Your task to perform on an android device: Search for sushi restaurants on Maps Image 0: 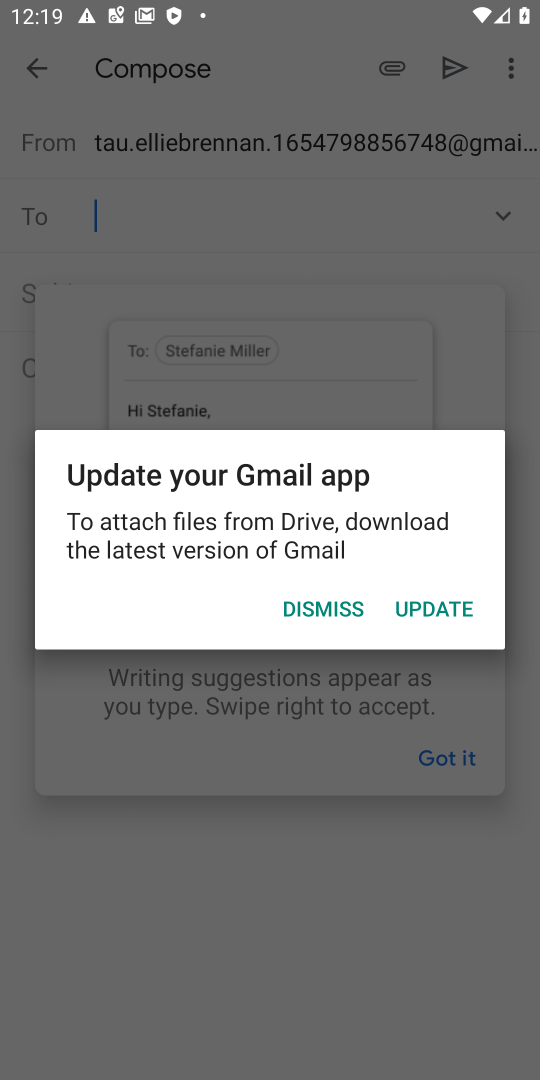
Step 0: press home button
Your task to perform on an android device: Search for sushi restaurants on Maps Image 1: 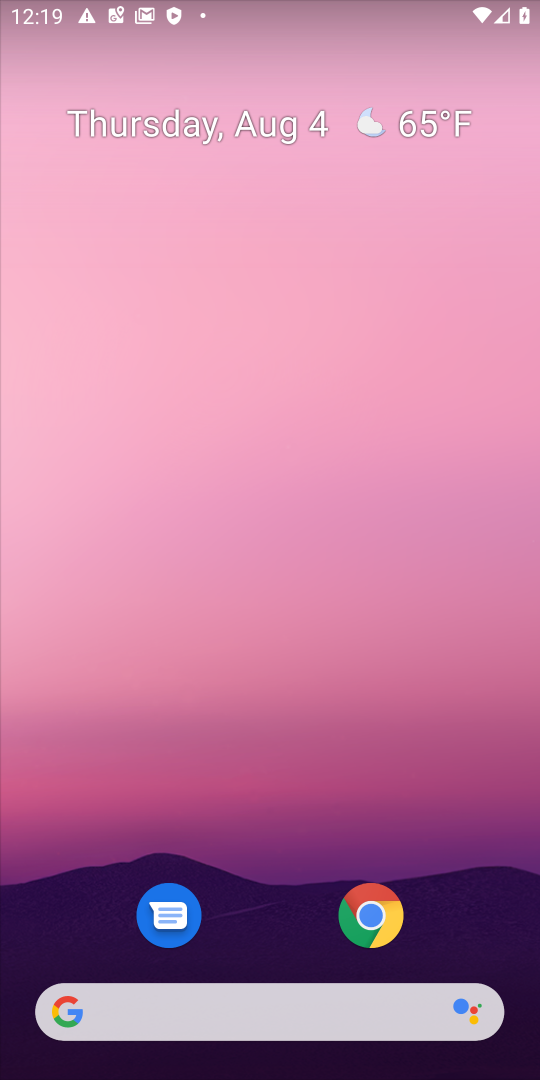
Step 1: drag from (266, 770) to (297, 93)
Your task to perform on an android device: Search for sushi restaurants on Maps Image 2: 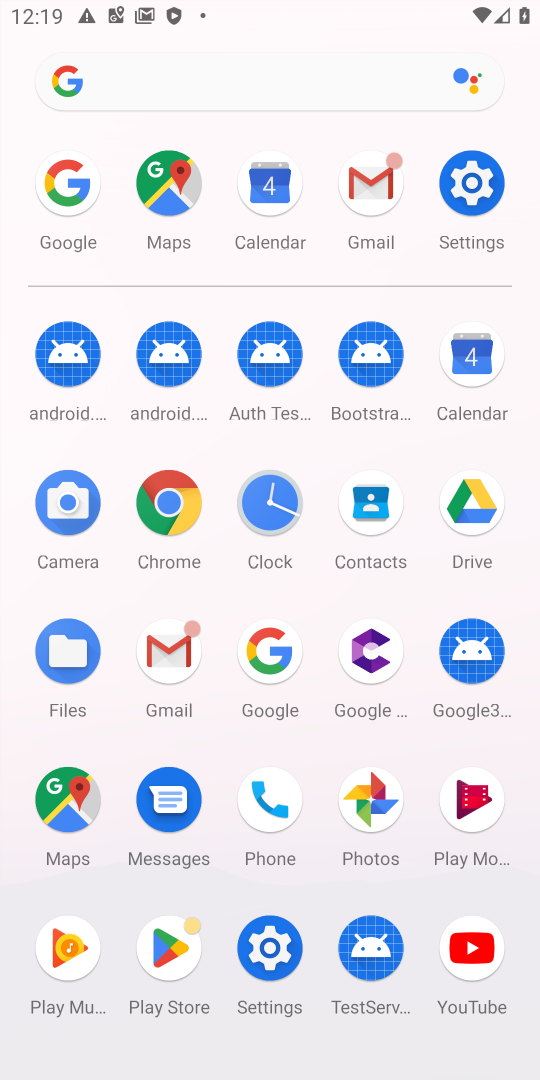
Step 2: click (171, 190)
Your task to perform on an android device: Search for sushi restaurants on Maps Image 3: 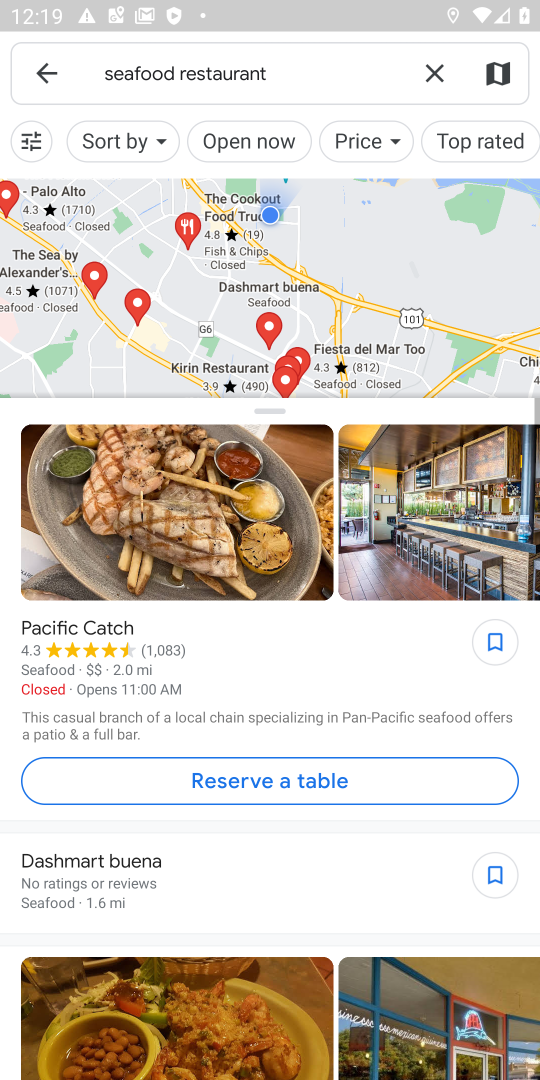
Step 3: click (49, 72)
Your task to perform on an android device: Search for sushi restaurants on Maps Image 4: 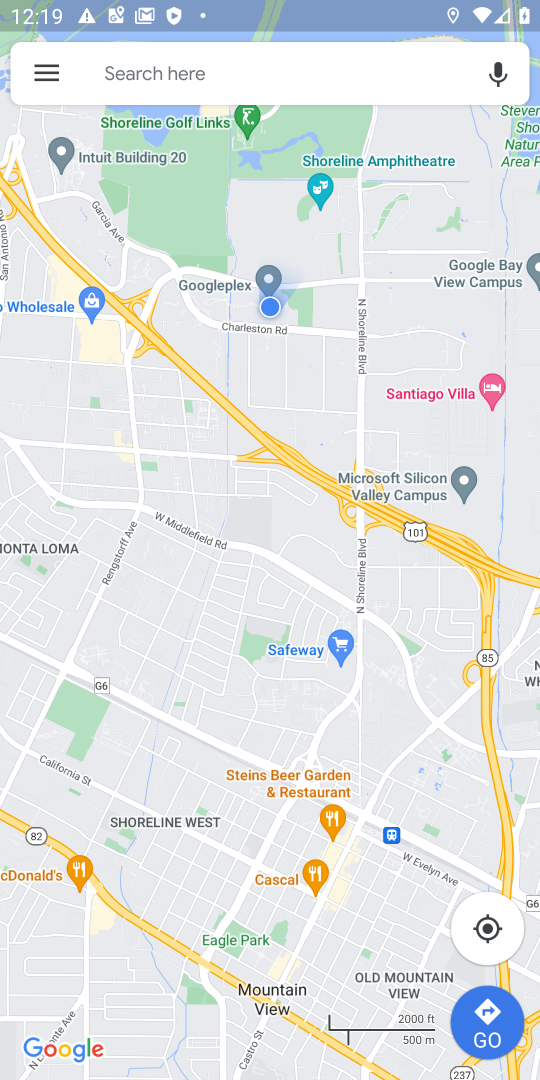
Step 4: click (205, 67)
Your task to perform on an android device: Search for sushi restaurants on Maps Image 5: 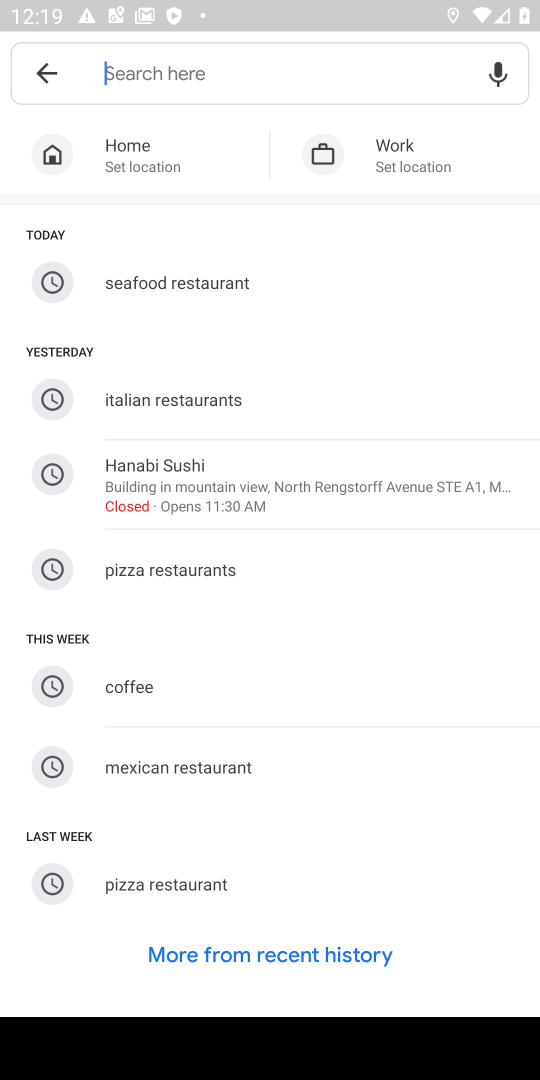
Step 5: type "Sushi restaurants"
Your task to perform on an android device: Search for sushi restaurants on Maps Image 6: 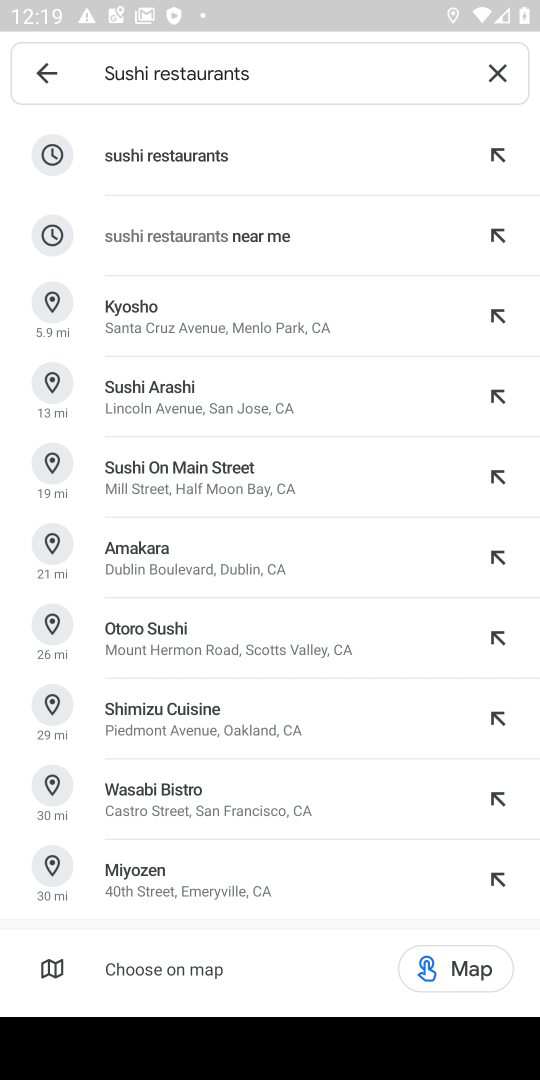
Step 6: click (233, 153)
Your task to perform on an android device: Search for sushi restaurants on Maps Image 7: 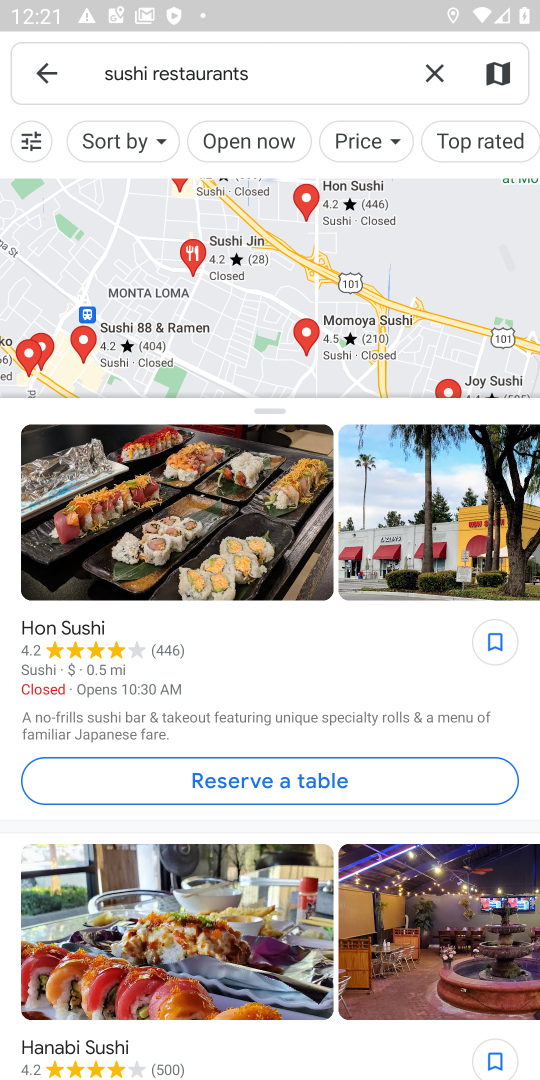
Step 7: task complete